Your task to perform on an android device: What's on my calendar today? Image 0: 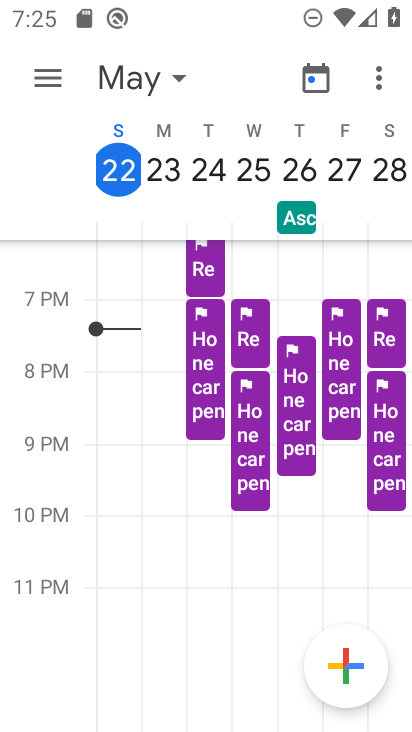
Step 0: press home button
Your task to perform on an android device: What's on my calendar today? Image 1: 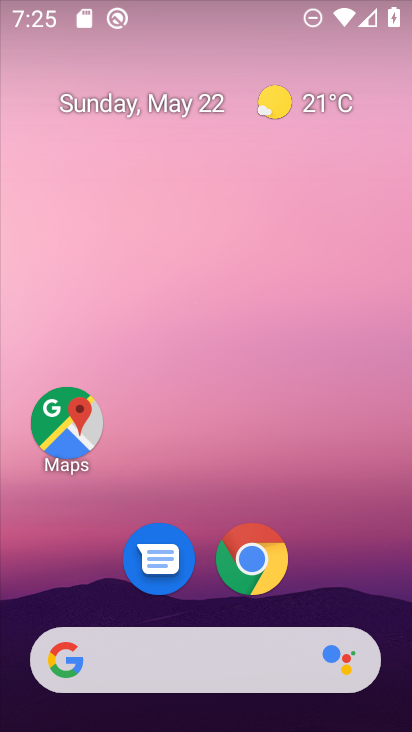
Step 1: drag from (266, 687) to (291, 209)
Your task to perform on an android device: What's on my calendar today? Image 2: 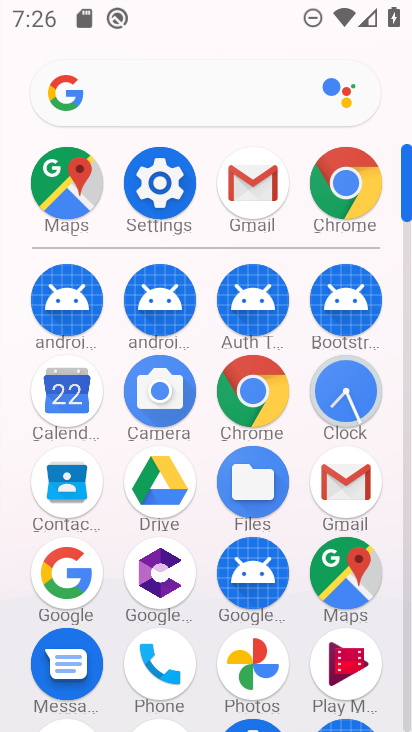
Step 2: click (89, 396)
Your task to perform on an android device: What's on my calendar today? Image 3: 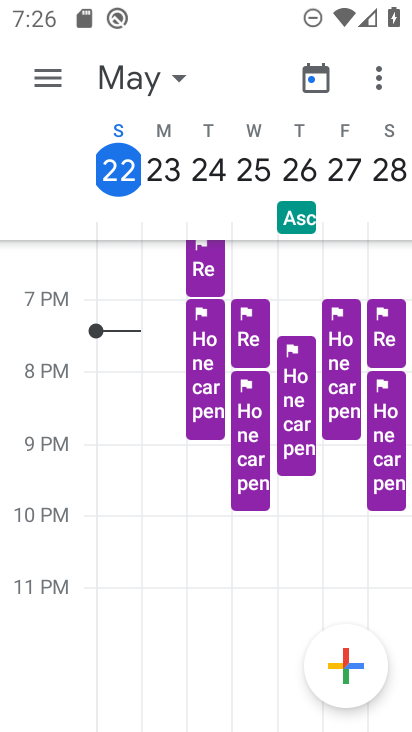
Step 3: click (121, 188)
Your task to perform on an android device: What's on my calendar today? Image 4: 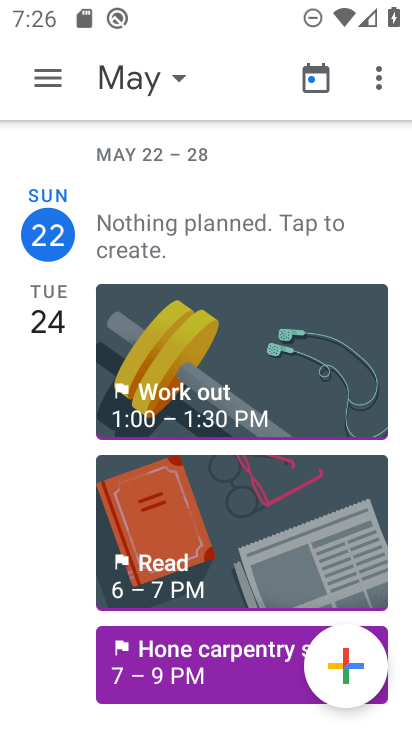
Step 4: task complete